Your task to perform on an android device: open wifi settings Image 0: 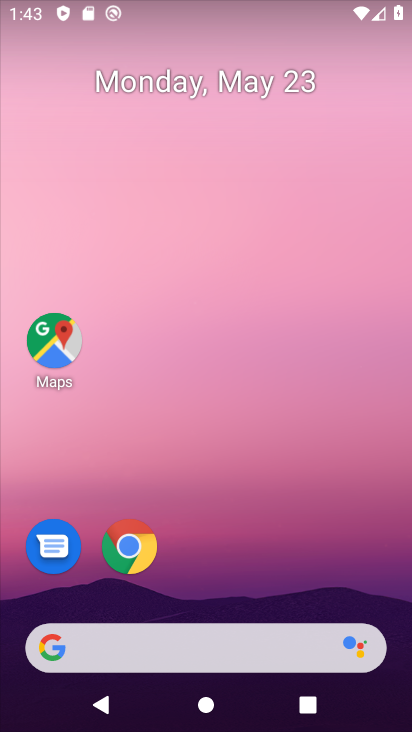
Step 0: drag from (81, 6) to (163, 501)
Your task to perform on an android device: open wifi settings Image 1: 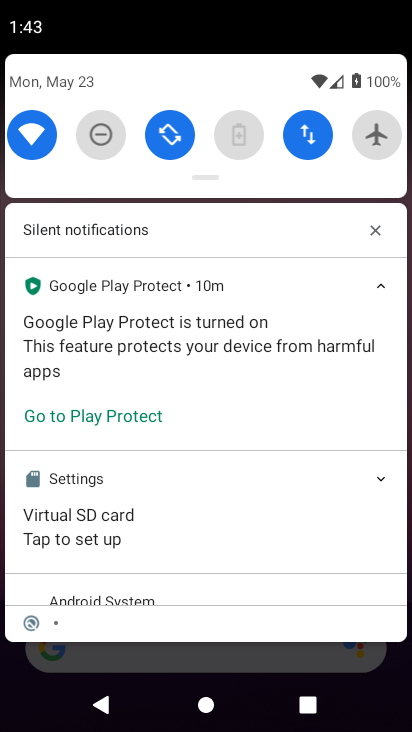
Step 1: click (33, 135)
Your task to perform on an android device: open wifi settings Image 2: 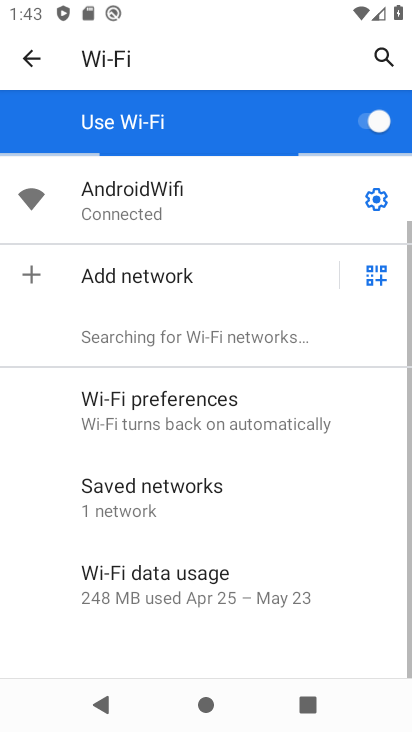
Step 2: task complete